Your task to perform on an android device: What's on the menu at In-N-Out? Image 0: 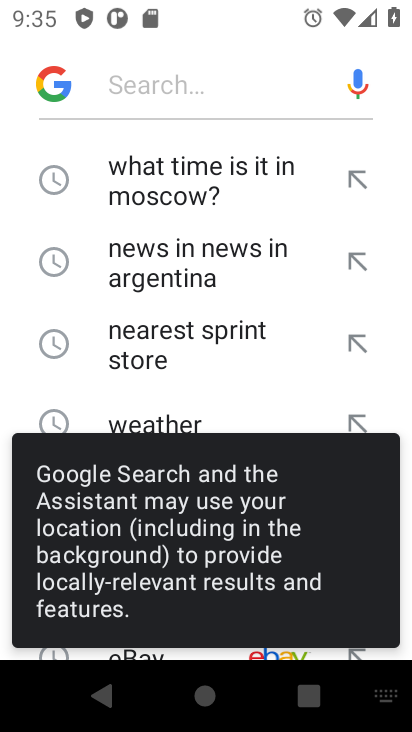
Step 0: press home button
Your task to perform on an android device: What's on the menu at In-N-Out? Image 1: 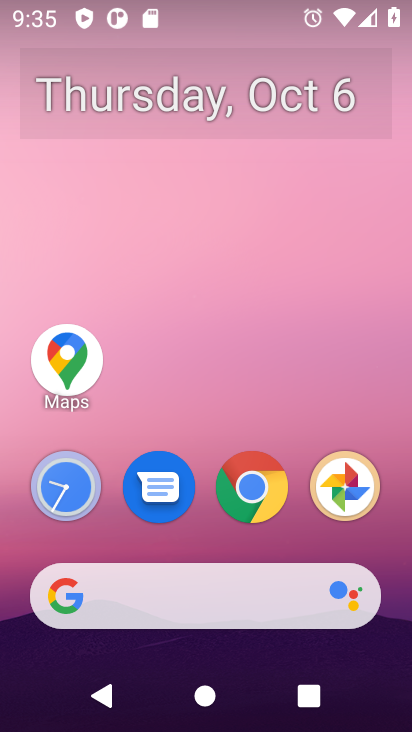
Step 1: click (252, 486)
Your task to perform on an android device: What's on the menu at In-N-Out? Image 2: 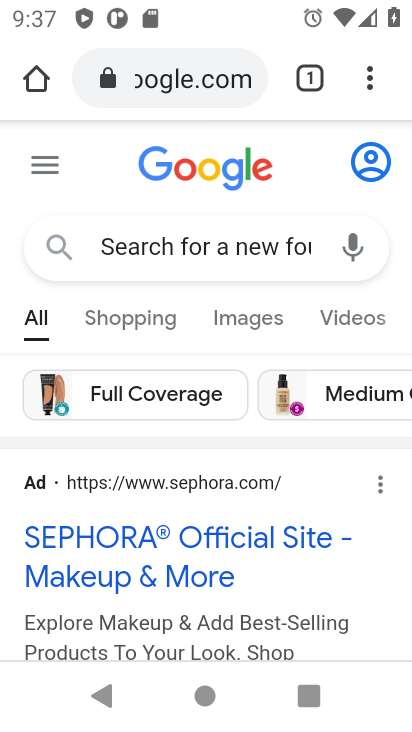
Step 2: click (221, 62)
Your task to perform on an android device: What's on the menu at In-N-Out? Image 3: 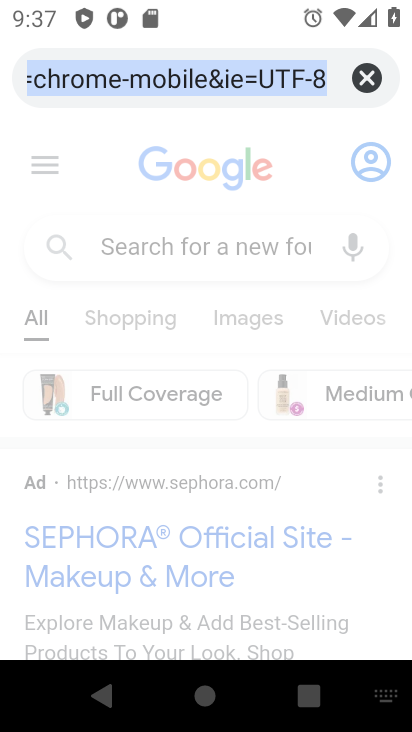
Step 3: click (225, 78)
Your task to perform on an android device: What's on the menu at In-N-Out? Image 4: 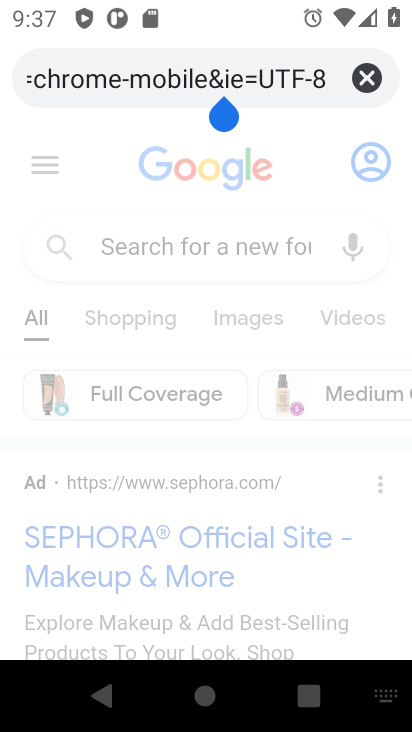
Step 4: click (365, 82)
Your task to perform on an android device: What's on the menu at In-N-Out? Image 5: 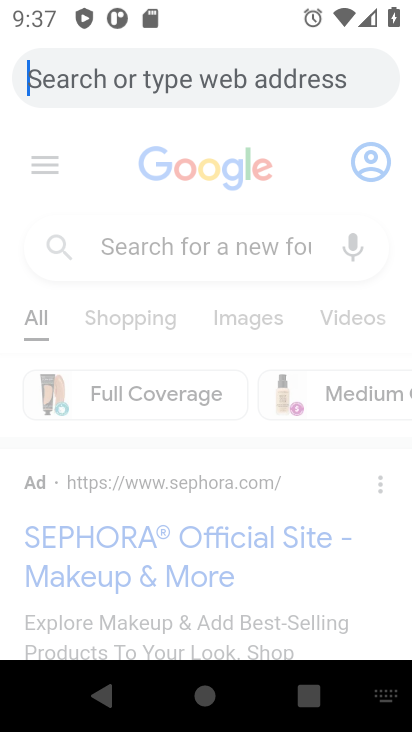
Step 5: type "In-N-Out?"
Your task to perform on an android device: What's on the menu at In-N-Out? Image 6: 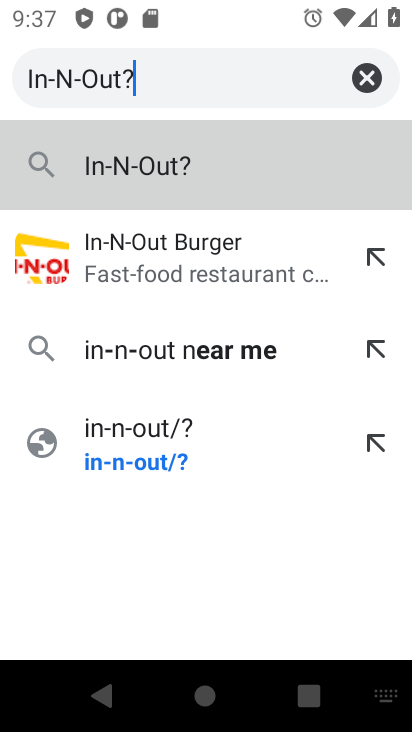
Step 6: press enter
Your task to perform on an android device: What's on the menu at In-N-Out? Image 7: 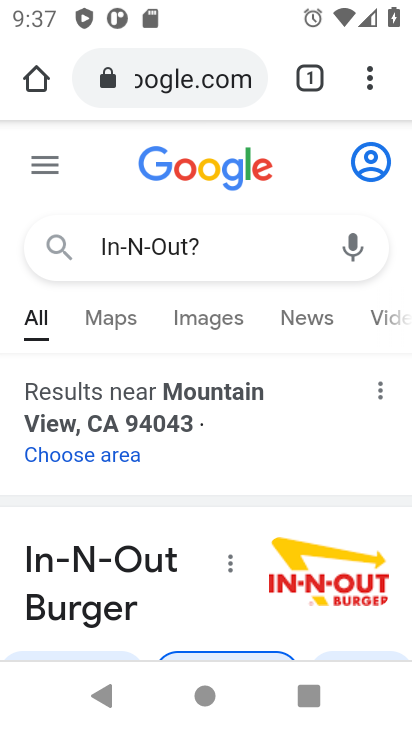
Step 7: drag from (255, 618) to (273, 270)
Your task to perform on an android device: What's on the menu at In-N-Out? Image 8: 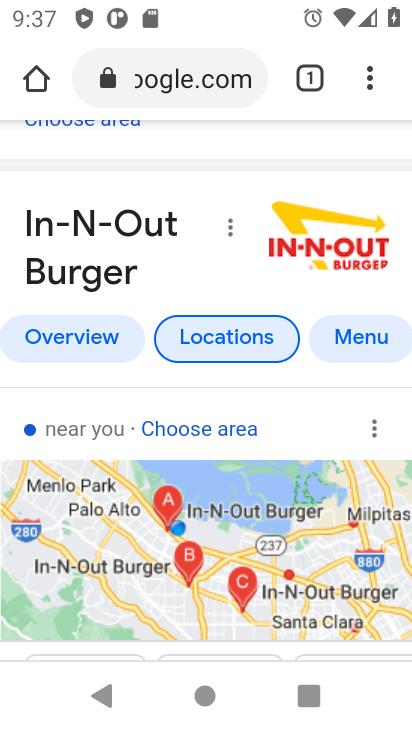
Step 8: click (89, 254)
Your task to perform on an android device: What's on the menu at In-N-Out? Image 9: 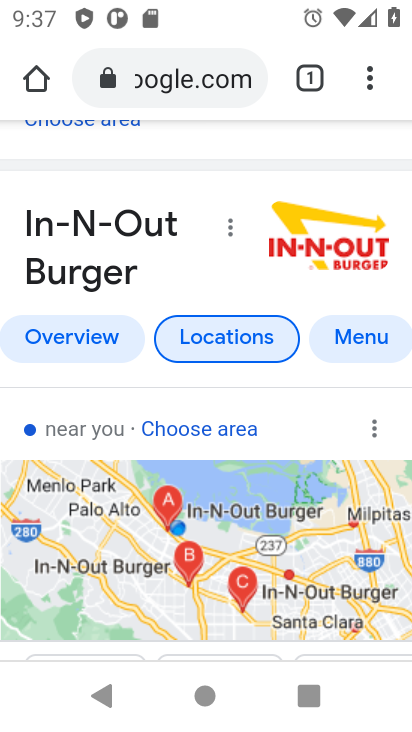
Step 9: click (265, 218)
Your task to perform on an android device: What's on the menu at In-N-Out? Image 10: 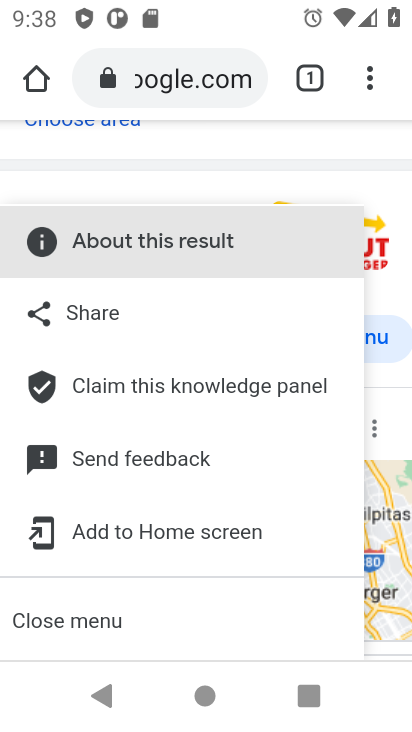
Step 10: drag from (270, 516) to (341, 168)
Your task to perform on an android device: What's on the menu at In-N-Out? Image 11: 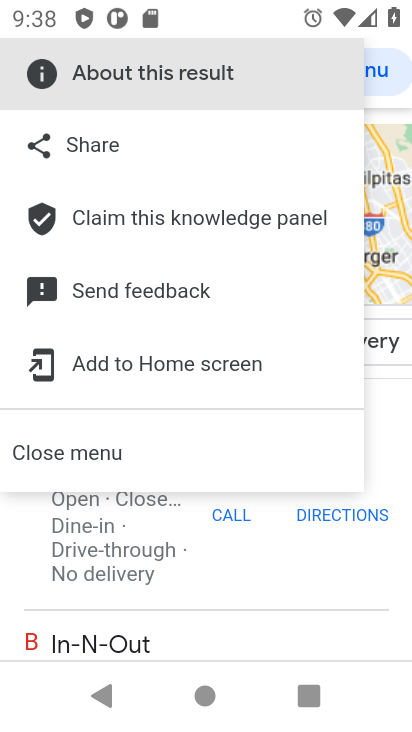
Step 11: press back button
Your task to perform on an android device: What's on the menu at In-N-Out? Image 12: 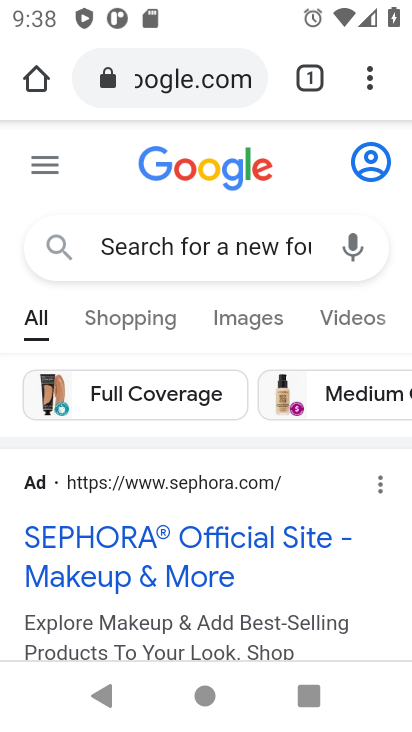
Step 12: drag from (308, 554) to (317, 222)
Your task to perform on an android device: What's on the menu at In-N-Out? Image 13: 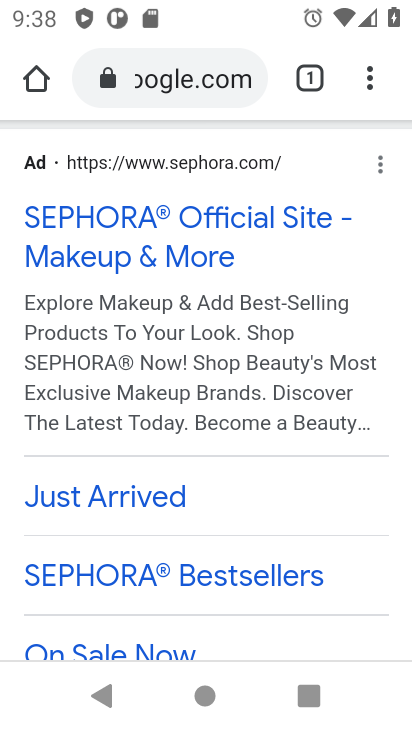
Step 13: drag from (186, 548) to (270, 144)
Your task to perform on an android device: What's on the menu at In-N-Out? Image 14: 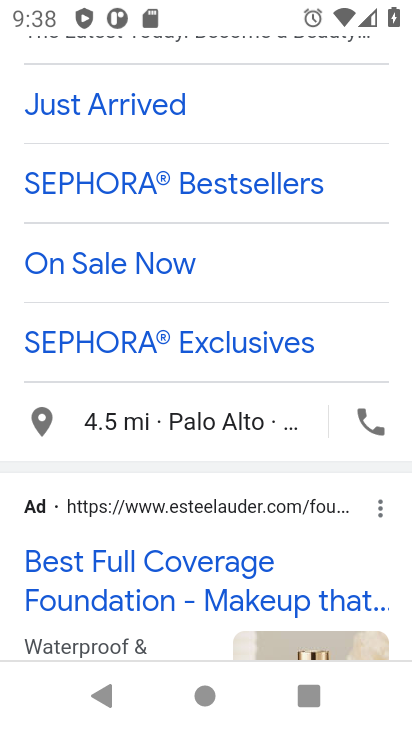
Step 14: drag from (210, 501) to (275, 109)
Your task to perform on an android device: What's on the menu at In-N-Out? Image 15: 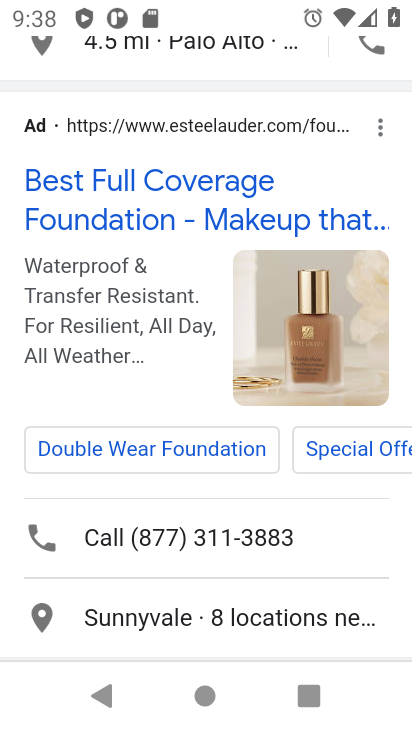
Step 15: drag from (285, 151) to (228, 577)
Your task to perform on an android device: What's on the menu at In-N-Out? Image 16: 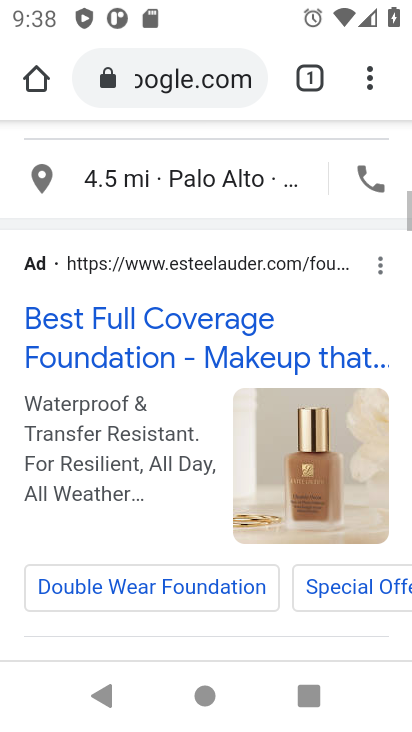
Step 16: drag from (259, 153) to (207, 596)
Your task to perform on an android device: What's on the menu at In-N-Out? Image 17: 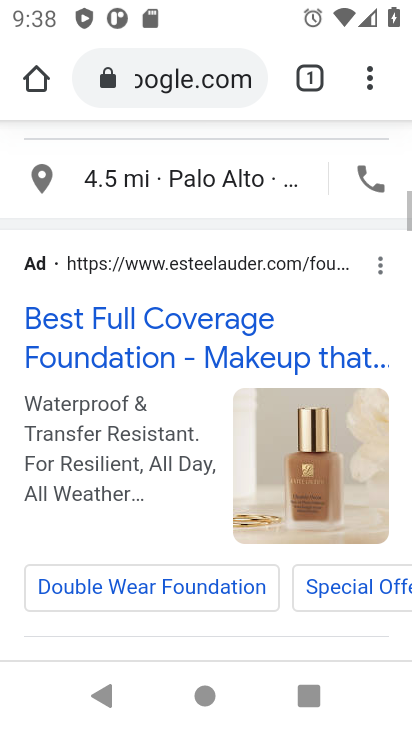
Step 17: drag from (209, 173) to (172, 543)
Your task to perform on an android device: What's on the menu at In-N-Out? Image 18: 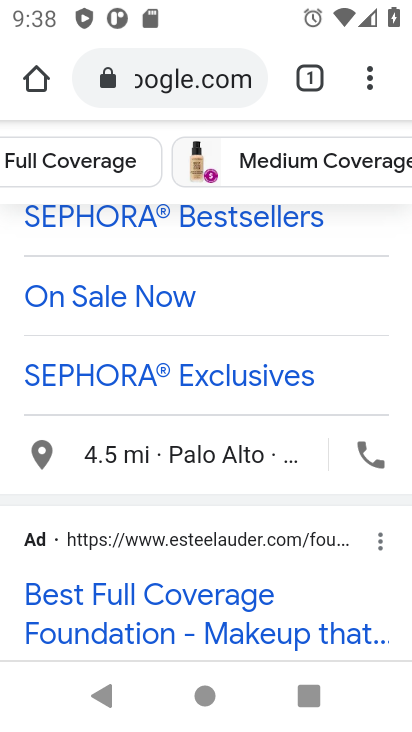
Step 18: click (197, 74)
Your task to perform on an android device: What's on the menu at In-N-Out? Image 19: 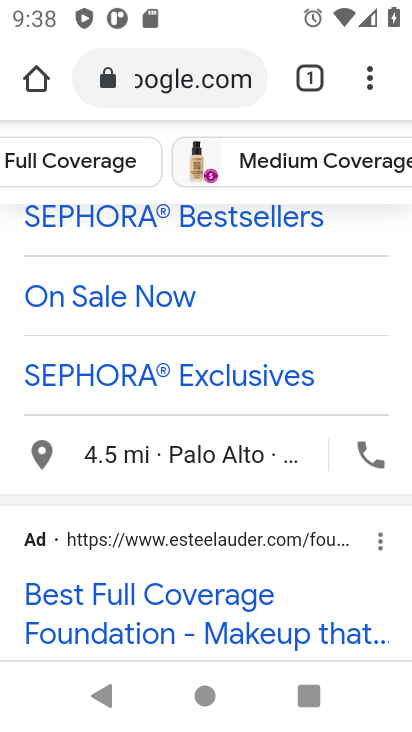
Step 19: click (194, 65)
Your task to perform on an android device: What's on the menu at In-N-Out? Image 20: 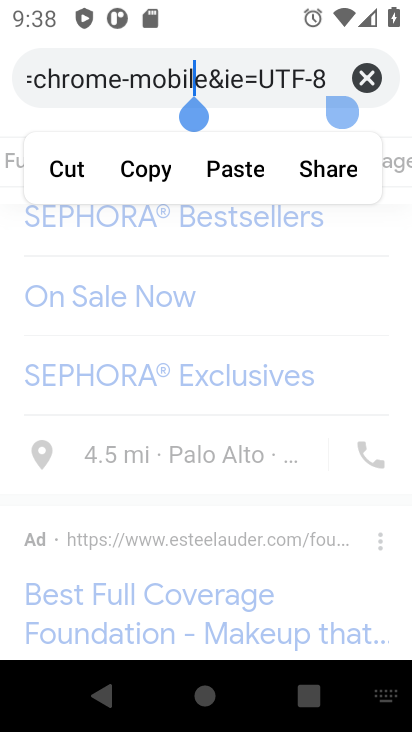
Step 20: click (194, 77)
Your task to perform on an android device: What's on the menu at In-N-Out? Image 21: 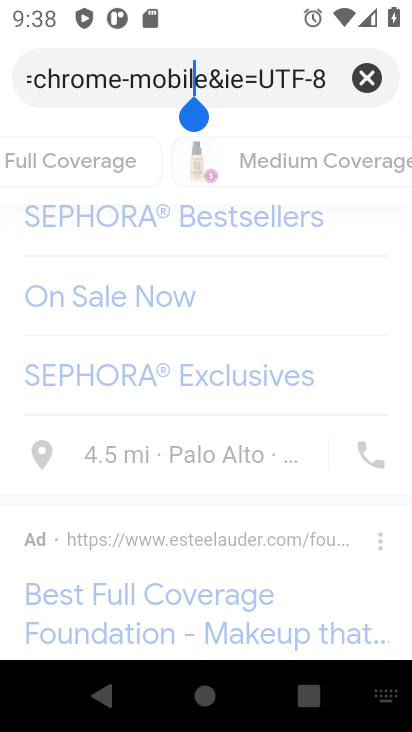
Step 21: click (363, 75)
Your task to perform on an android device: What's on the menu at In-N-Out? Image 22: 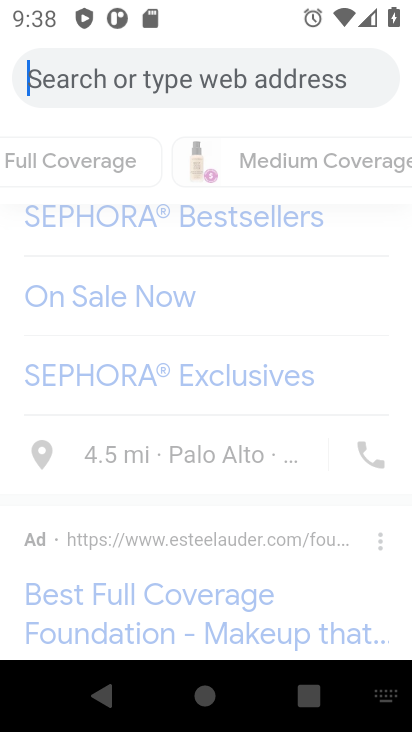
Step 22: type "In-N-Out?"
Your task to perform on an android device: What's on the menu at In-N-Out? Image 23: 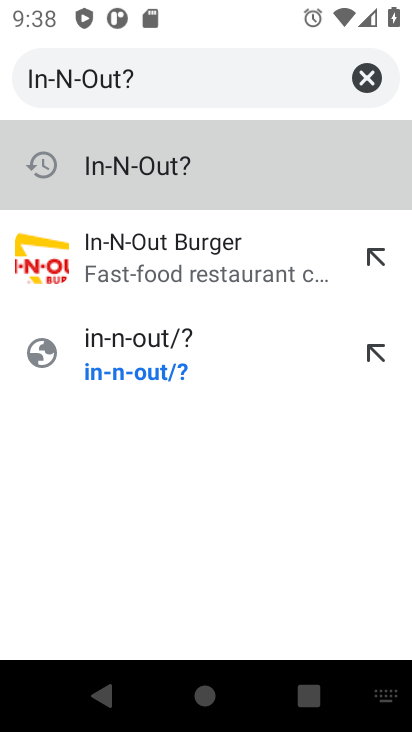
Step 23: press enter
Your task to perform on an android device: What's on the menu at In-N-Out? Image 24: 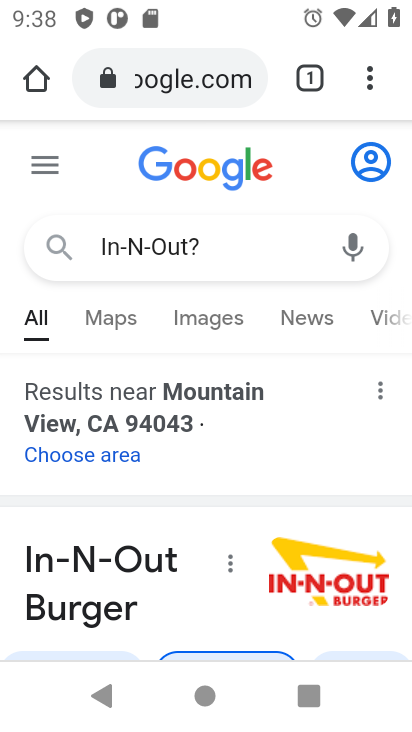
Step 24: drag from (199, 496) to (256, 188)
Your task to perform on an android device: What's on the menu at In-N-Out? Image 25: 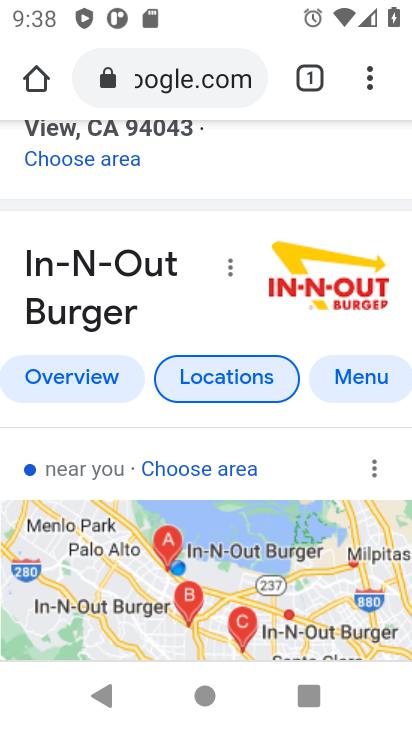
Step 25: click (342, 387)
Your task to perform on an android device: What's on the menu at In-N-Out? Image 26: 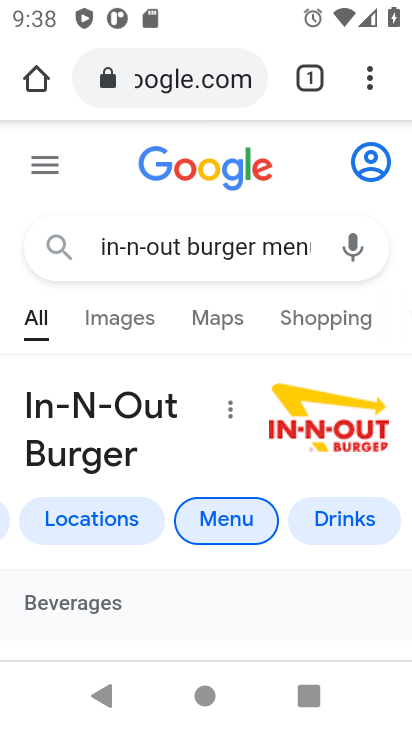
Step 26: drag from (216, 602) to (285, 205)
Your task to perform on an android device: What's on the menu at In-N-Out? Image 27: 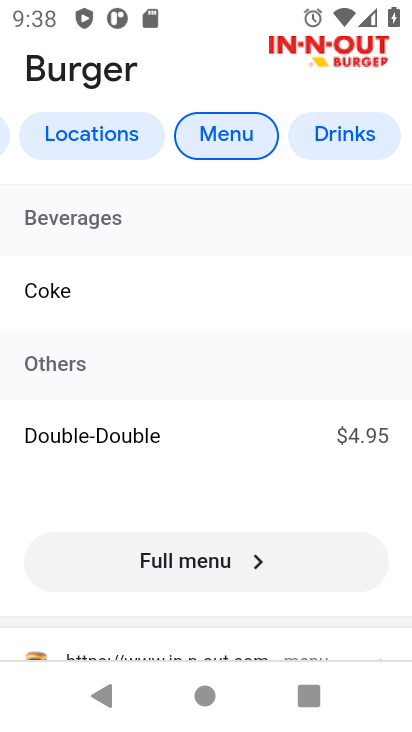
Step 27: drag from (308, 441) to (327, 264)
Your task to perform on an android device: What's on the menu at In-N-Out? Image 28: 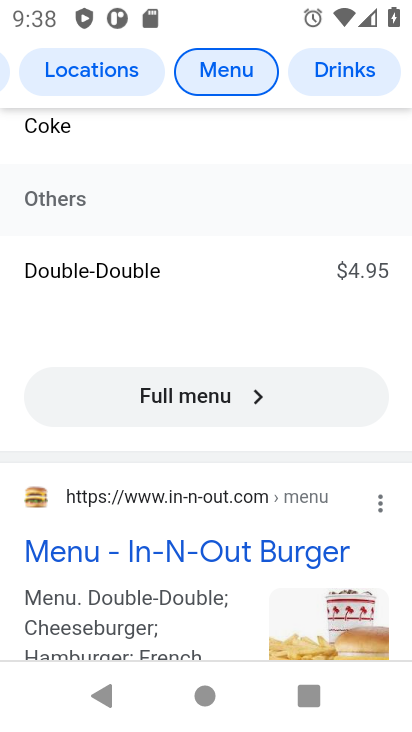
Step 28: drag from (227, 564) to (248, 148)
Your task to perform on an android device: What's on the menu at In-N-Out? Image 29: 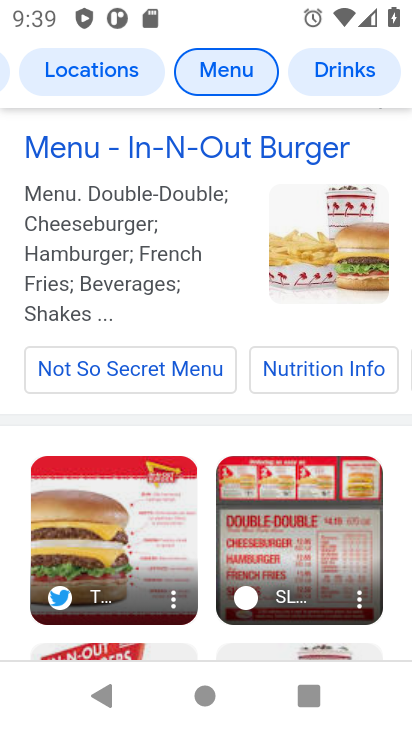
Step 29: drag from (234, 266) to (244, 518)
Your task to perform on an android device: What's on the menu at In-N-Out? Image 30: 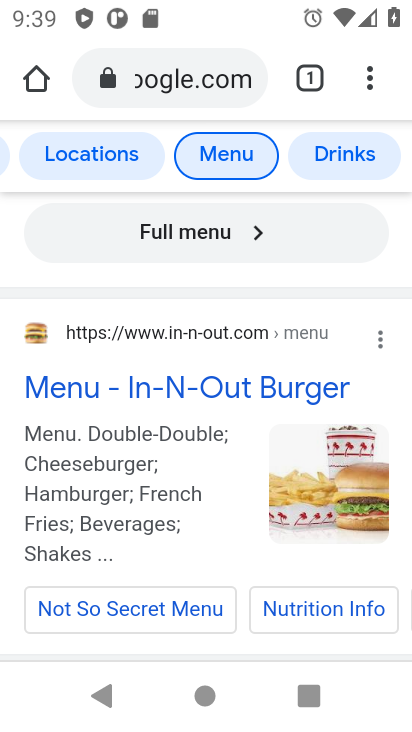
Step 30: click (205, 388)
Your task to perform on an android device: What's on the menu at In-N-Out? Image 31: 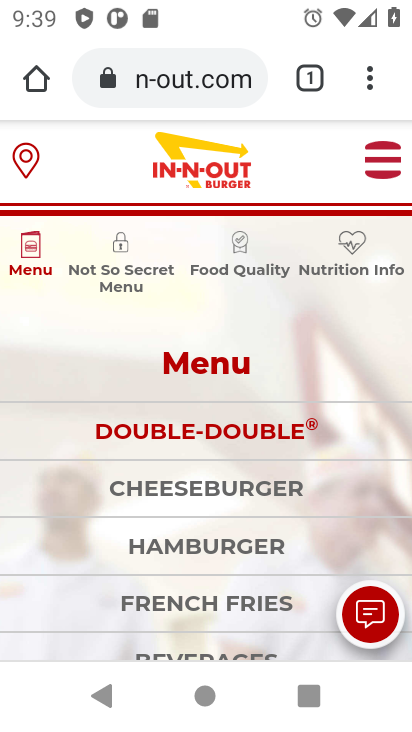
Step 31: task complete